Your task to perform on an android device: move an email to a new category in the gmail app Image 0: 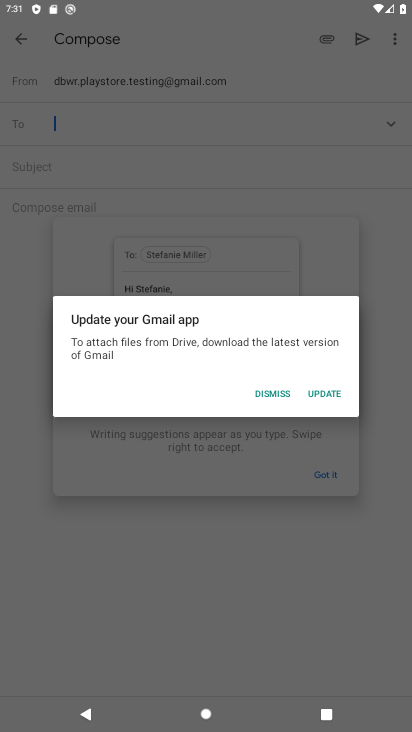
Step 0: press home button
Your task to perform on an android device: move an email to a new category in the gmail app Image 1: 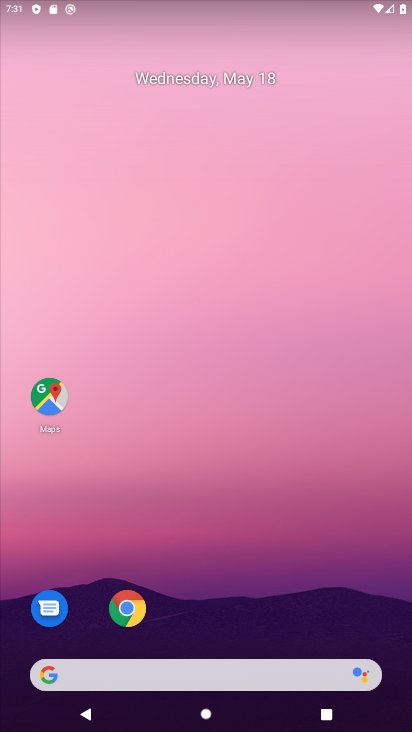
Step 1: drag from (332, 582) to (304, 172)
Your task to perform on an android device: move an email to a new category in the gmail app Image 2: 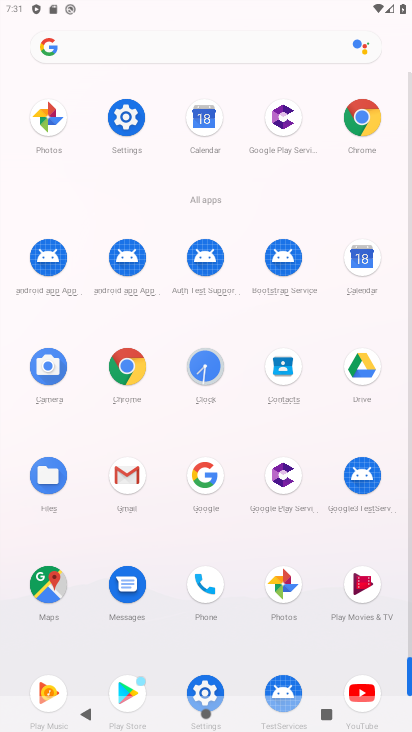
Step 2: click (131, 474)
Your task to perform on an android device: move an email to a new category in the gmail app Image 3: 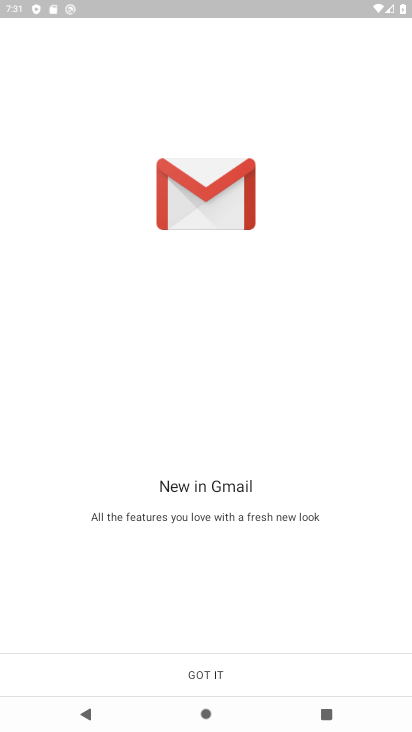
Step 3: click (222, 669)
Your task to perform on an android device: move an email to a new category in the gmail app Image 4: 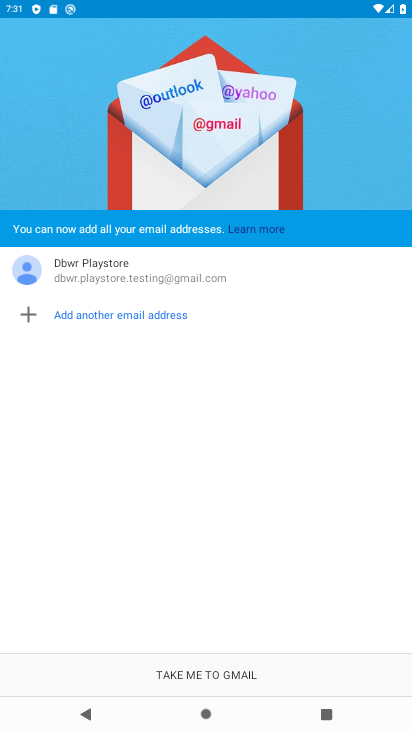
Step 4: click (228, 668)
Your task to perform on an android device: move an email to a new category in the gmail app Image 5: 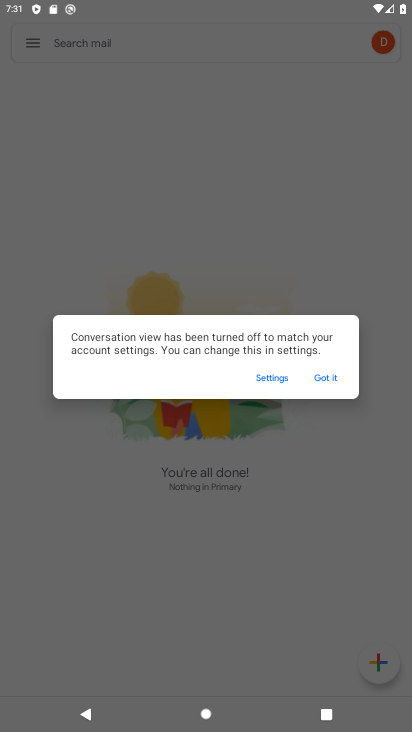
Step 5: click (329, 383)
Your task to perform on an android device: move an email to a new category in the gmail app Image 6: 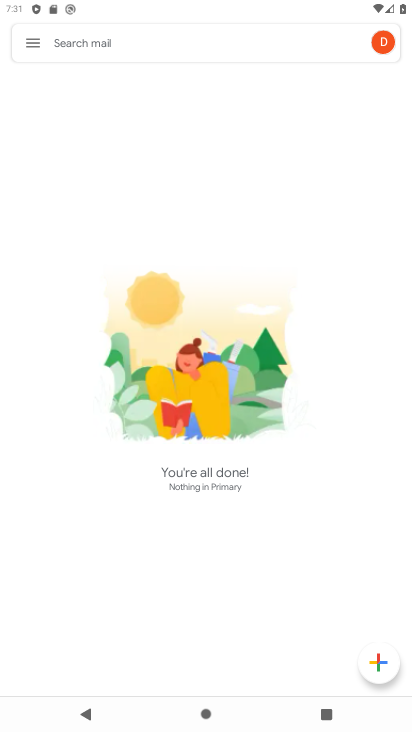
Step 6: click (35, 52)
Your task to perform on an android device: move an email to a new category in the gmail app Image 7: 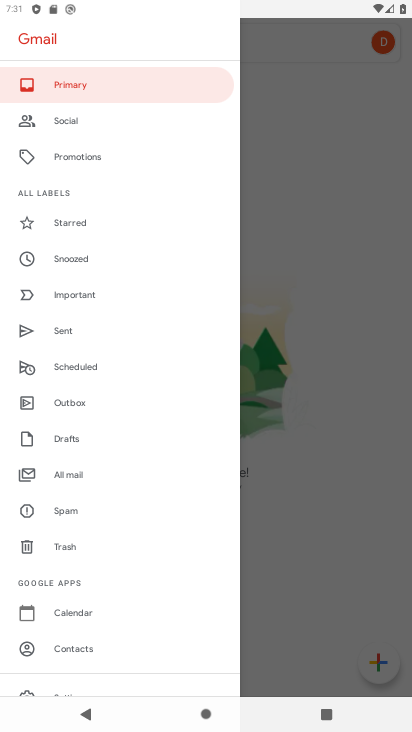
Step 7: click (89, 472)
Your task to perform on an android device: move an email to a new category in the gmail app Image 8: 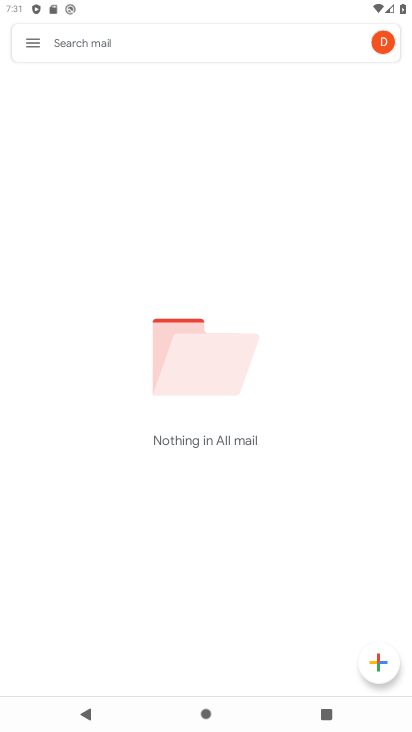
Step 8: task complete